Your task to perform on an android device: toggle improve location accuracy Image 0: 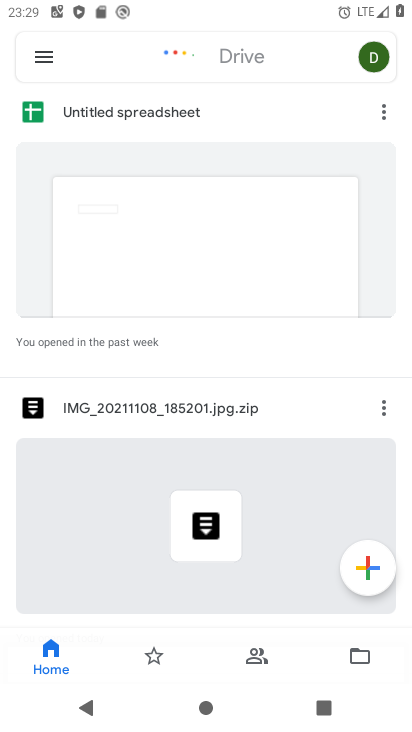
Step 0: press back button
Your task to perform on an android device: toggle improve location accuracy Image 1: 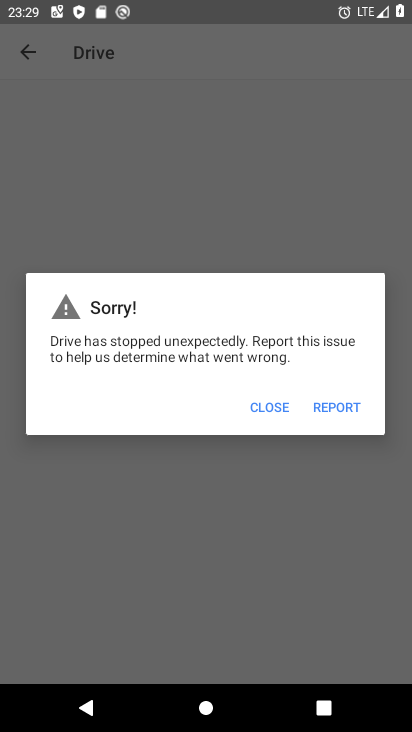
Step 1: press home button
Your task to perform on an android device: toggle improve location accuracy Image 2: 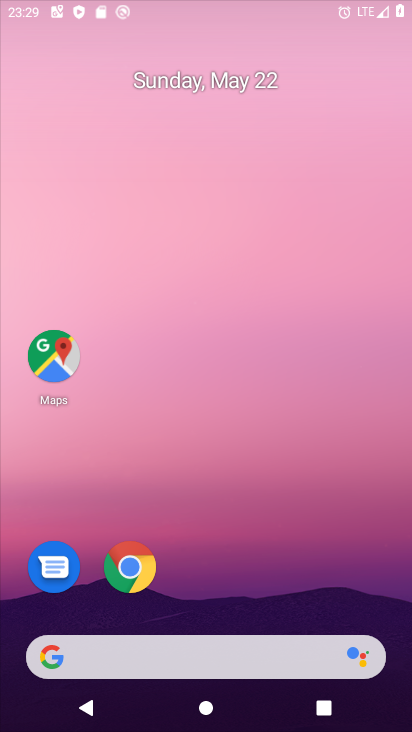
Step 2: drag from (365, 509) to (288, 9)
Your task to perform on an android device: toggle improve location accuracy Image 3: 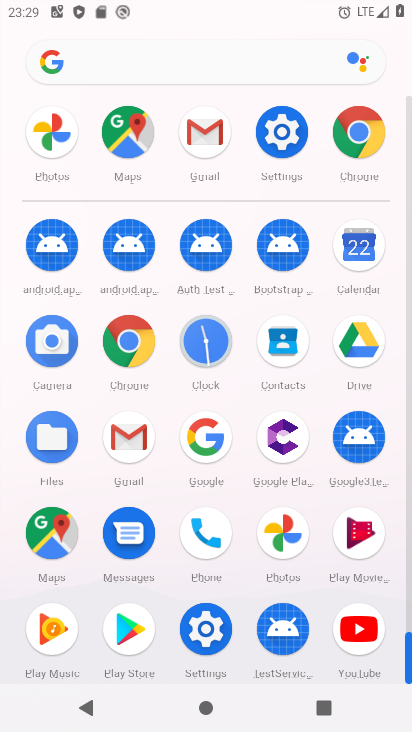
Step 3: click (208, 621)
Your task to perform on an android device: toggle improve location accuracy Image 4: 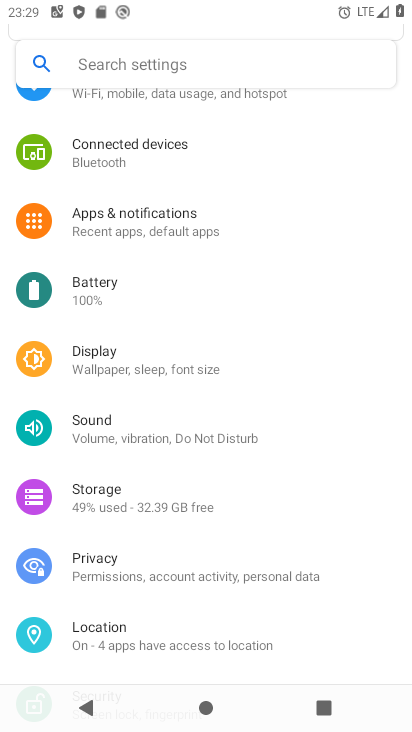
Step 4: click (146, 630)
Your task to perform on an android device: toggle improve location accuracy Image 5: 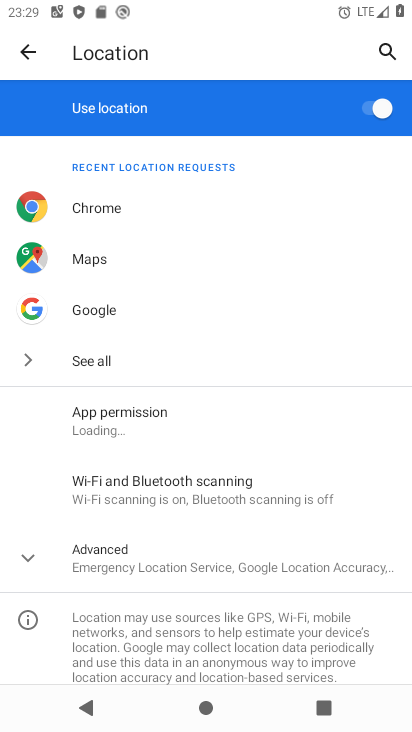
Step 5: click (36, 555)
Your task to perform on an android device: toggle improve location accuracy Image 6: 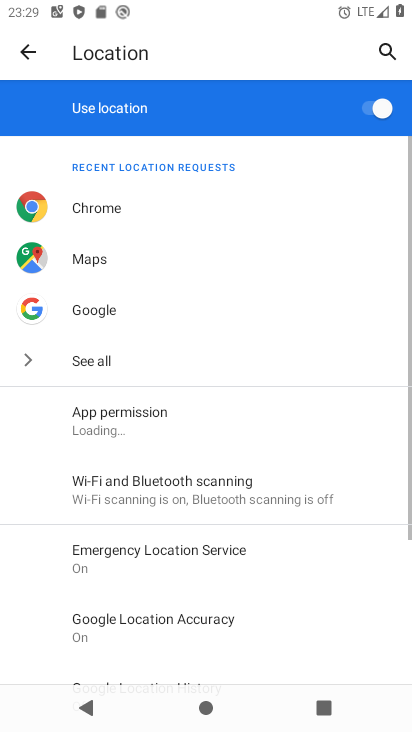
Step 6: drag from (275, 590) to (269, 216)
Your task to perform on an android device: toggle improve location accuracy Image 7: 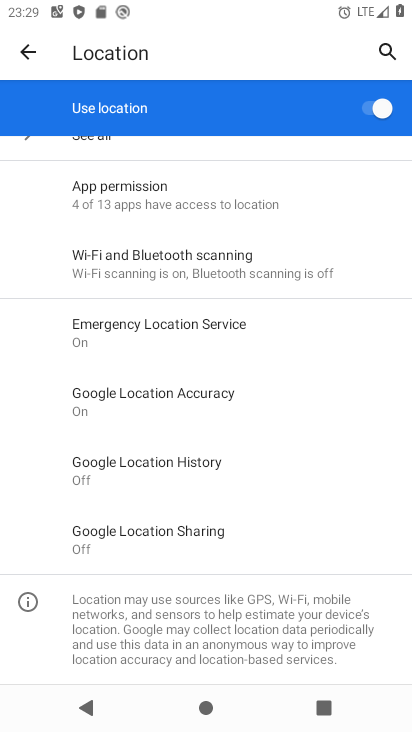
Step 7: click (200, 396)
Your task to perform on an android device: toggle improve location accuracy Image 8: 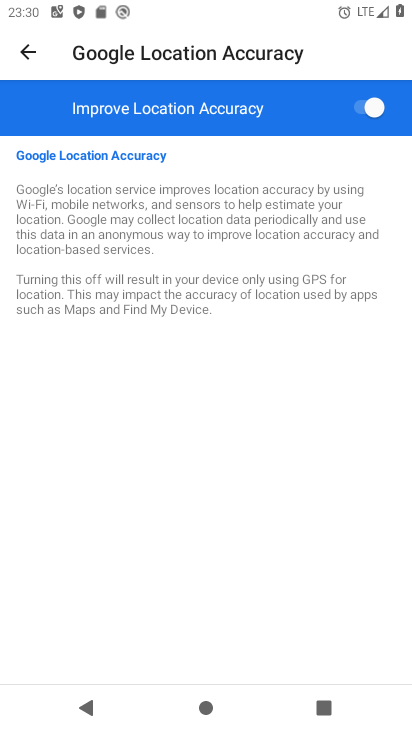
Step 8: click (367, 104)
Your task to perform on an android device: toggle improve location accuracy Image 9: 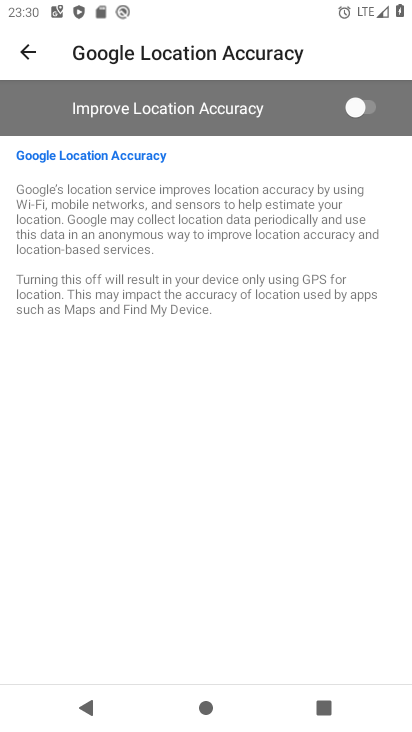
Step 9: task complete